Your task to perform on an android device: set the stopwatch Image 0: 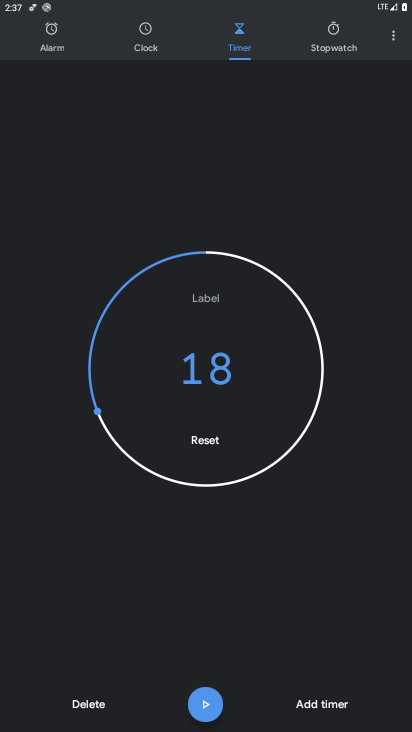
Step 0: click (220, 383)
Your task to perform on an android device: set the stopwatch Image 1: 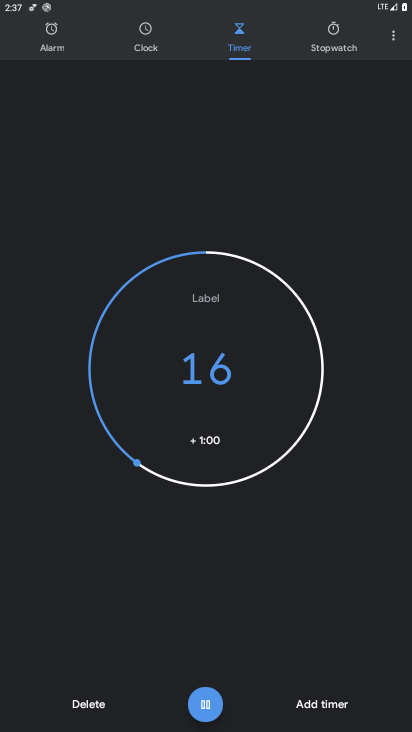
Step 1: click (212, 379)
Your task to perform on an android device: set the stopwatch Image 2: 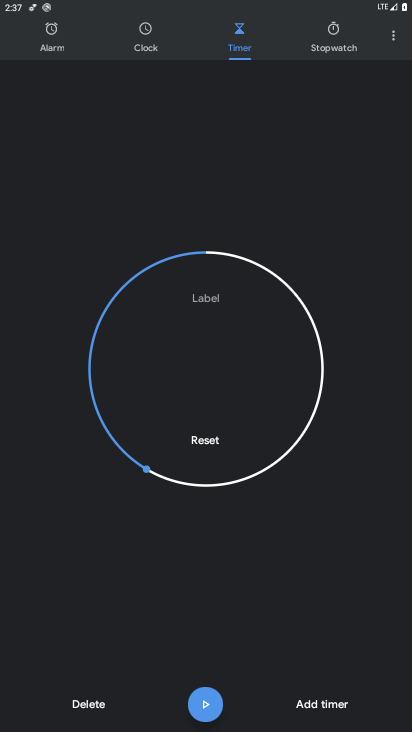
Step 2: task complete